Your task to perform on an android device: turn on sleep mode Image 0: 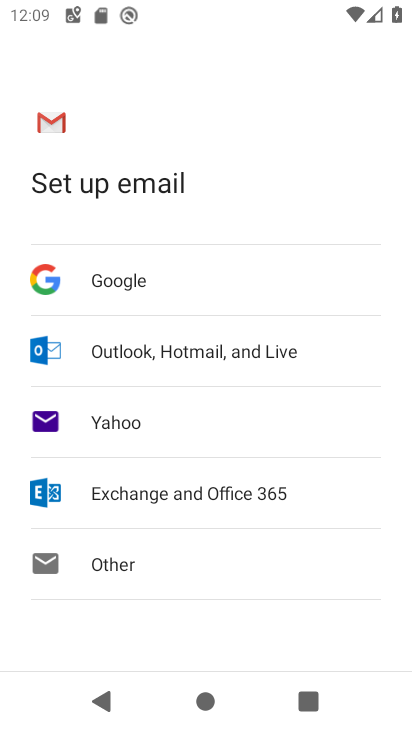
Step 0: press home button
Your task to perform on an android device: turn on sleep mode Image 1: 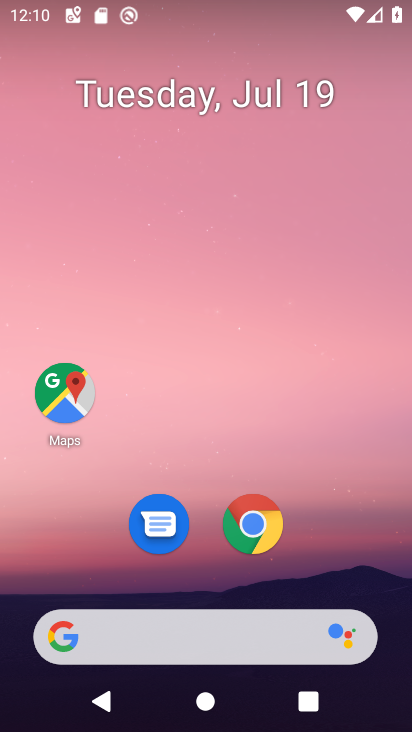
Step 1: drag from (337, 562) to (348, 76)
Your task to perform on an android device: turn on sleep mode Image 2: 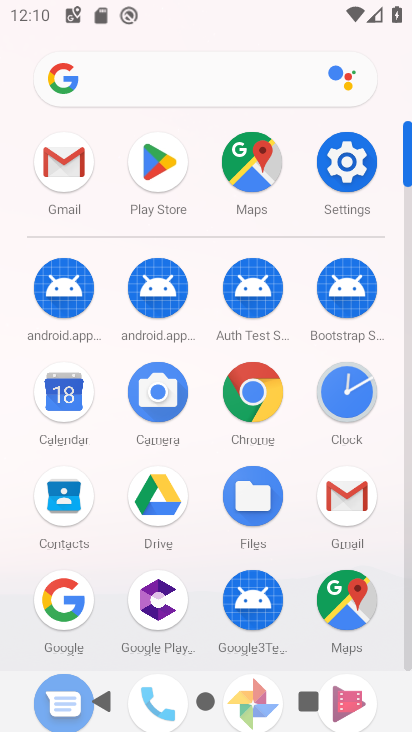
Step 2: click (358, 174)
Your task to perform on an android device: turn on sleep mode Image 3: 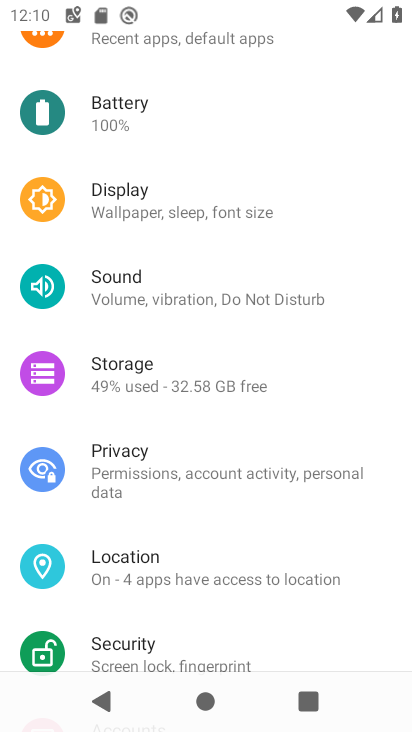
Step 3: drag from (254, 227) to (224, 565)
Your task to perform on an android device: turn on sleep mode Image 4: 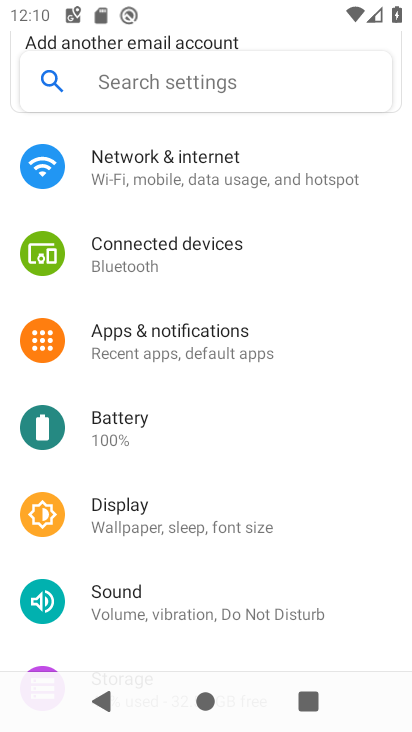
Step 4: drag from (215, 583) to (241, 91)
Your task to perform on an android device: turn on sleep mode Image 5: 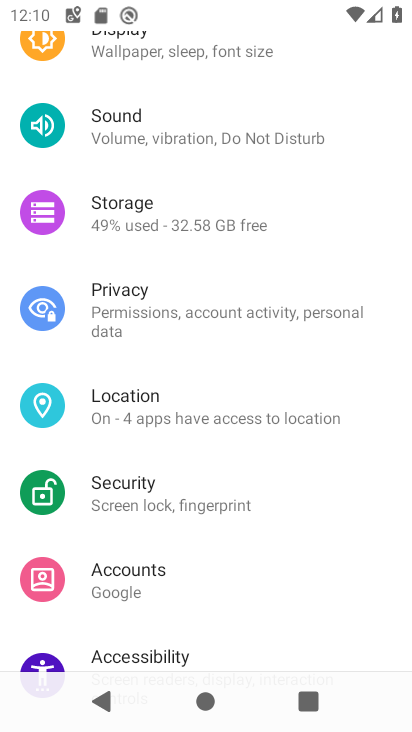
Step 5: drag from (221, 111) to (210, 223)
Your task to perform on an android device: turn on sleep mode Image 6: 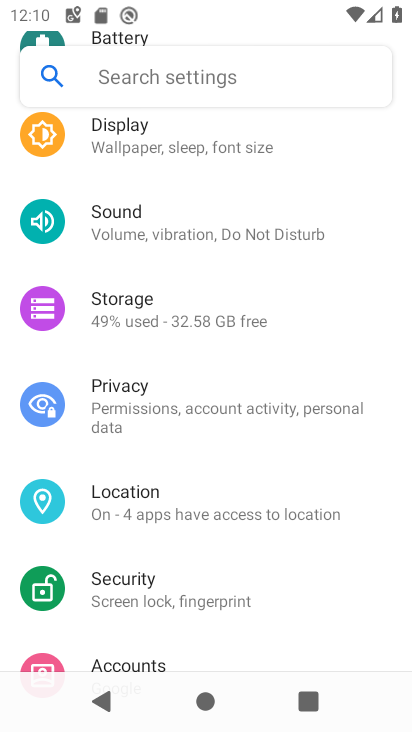
Step 6: click (201, 135)
Your task to perform on an android device: turn on sleep mode Image 7: 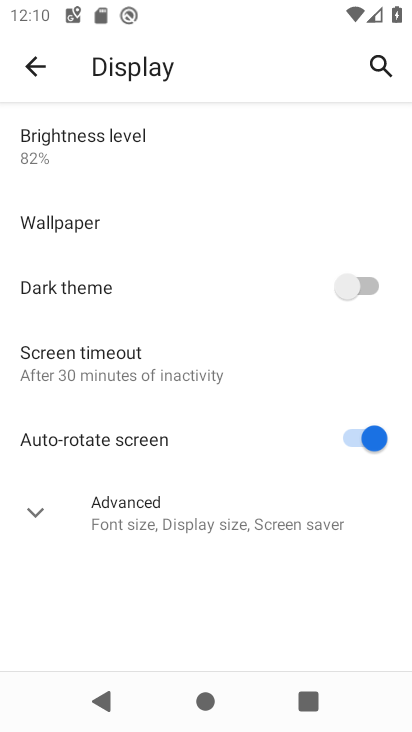
Step 7: click (35, 511)
Your task to perform on an android device: turn on sleep mode Image 8: 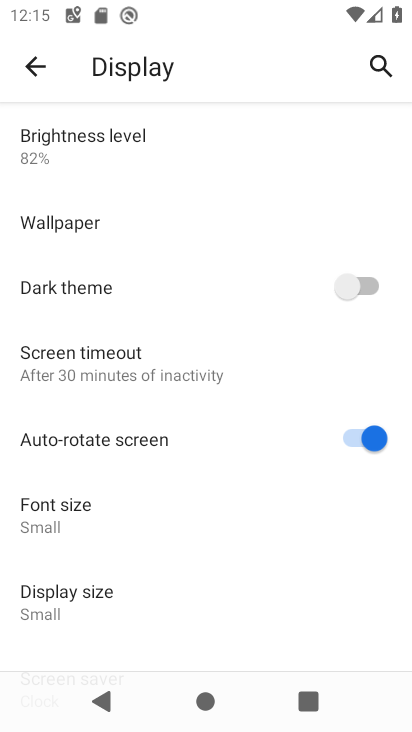
Step 8: task complete